Your task to perform on an android device: Search for vegetarian restaurants on Maps Image 0: 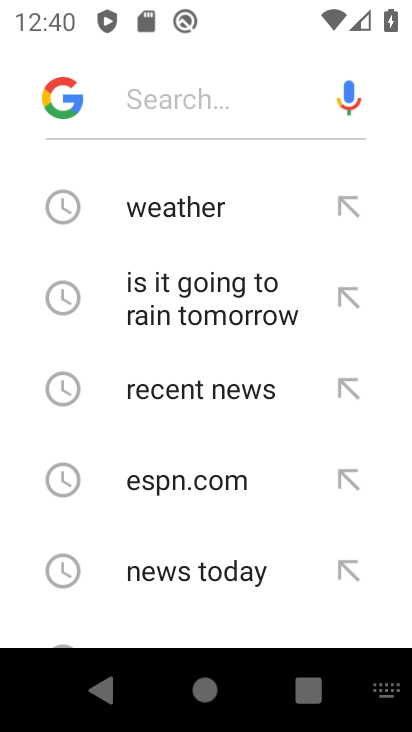
Step 0: press home button
Your task to perform on an android device: Search for vegetarian restaurants on Maps Image 1: 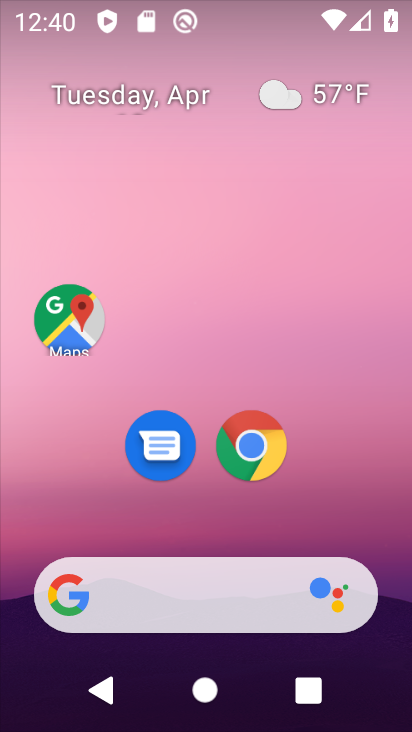
Step 1: click (70, 327)
Your task to perform on an android device: Search for vegetarian restaurants on Maps Image 2: 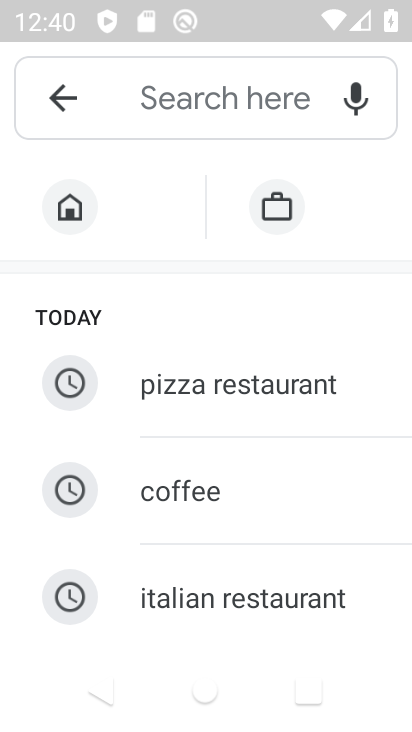
Step 2: drag from (222, 546) to (277, 178)
Your task to perform on an android device: Search for vegetarian restaurants on Maps Image 3: 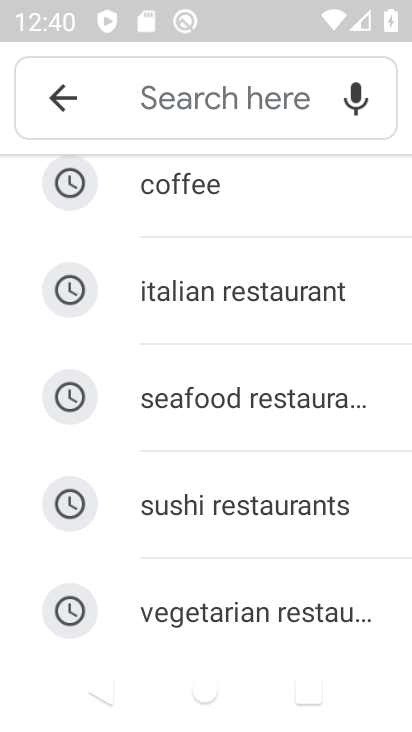
Step 3: click (237, 601)
Your task to perform on an android device: Search for vegetarian restaurants on Maps Image 4: 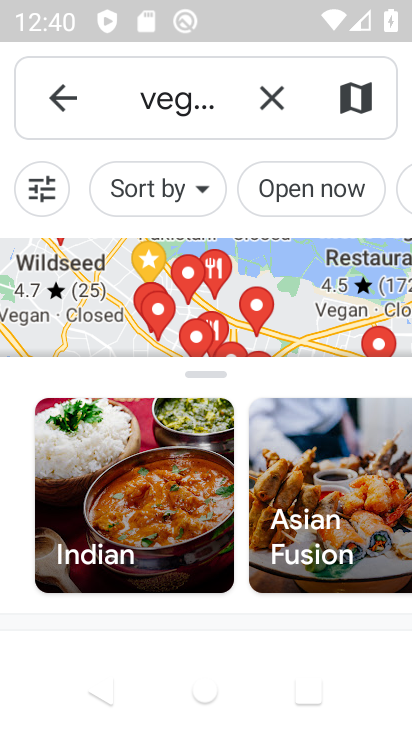
Step 4: task complete